Your task to perform on an android device: set default search engine in the chrome app Image 0: 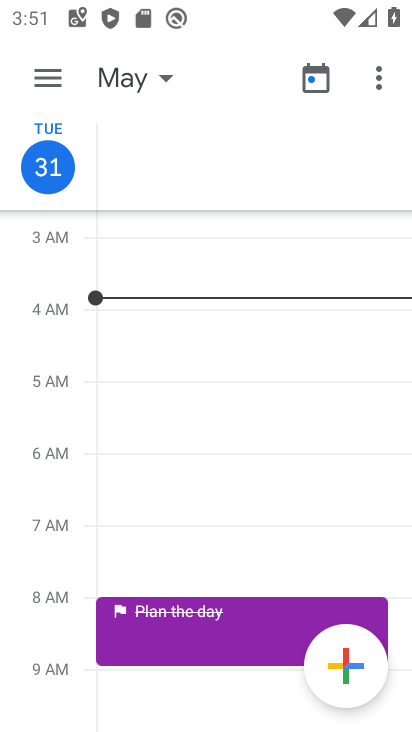
Step 0: press home button
Your task to perform on an android device: set default search engine in the chrome app Image 1: 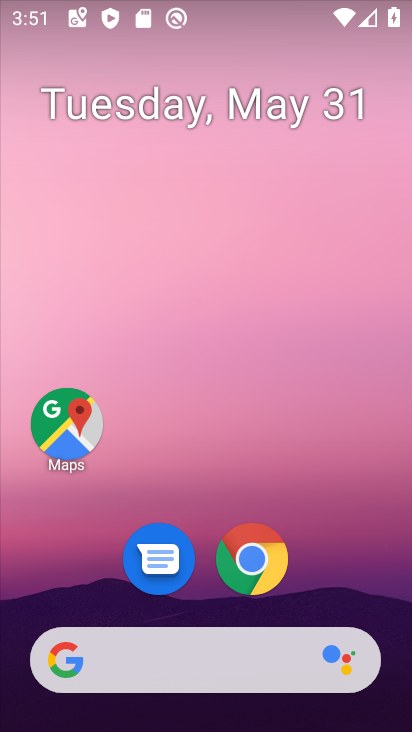
Step 1: click (252, 554)
Your task to perform on an android device: set default search engine in the chrome app Image 2: 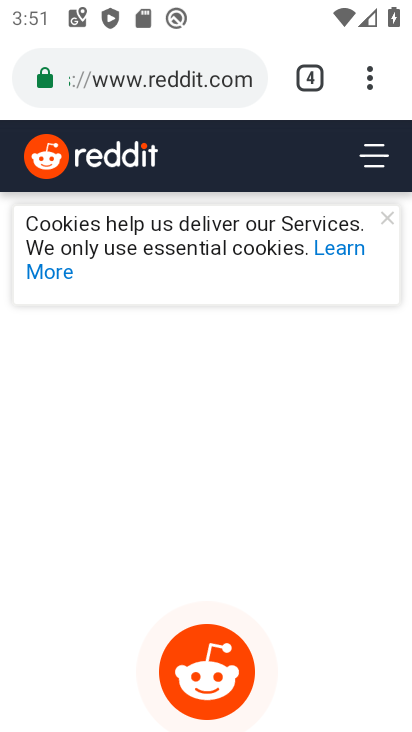
Step 2: click (371, 84)
Your task to perform on an android device: set default search engine in the chrome app Image 3: 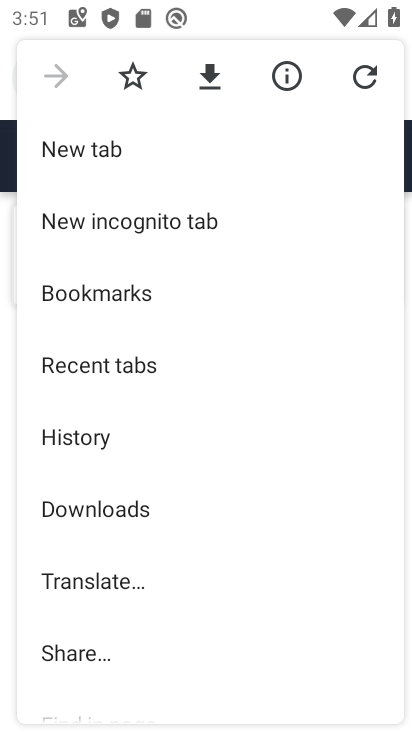
Step 3: drag from (114, 664) to (104, 281)
Your task to perform on an android device: set default search engine in the chrome app Image 4: 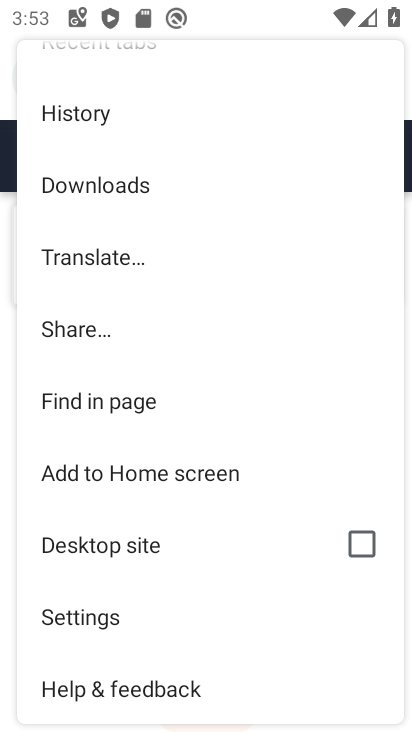
Step 4: click (92, 618)
Your task to perform on an android device: set default search engine in the chrome app Image 5: 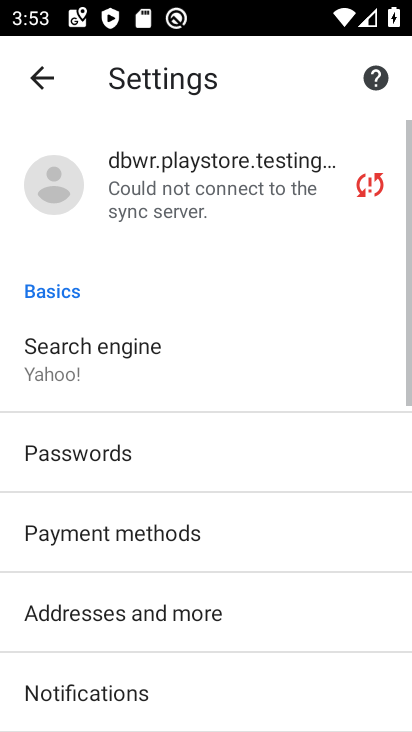
Step 5: click (83, 345)
Your task to perform on an android device: set default search engine in the chrome app Image 6: 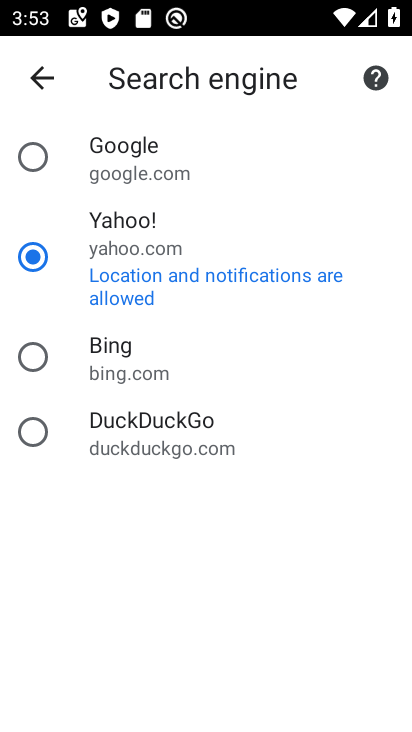
Step 6: click (35, 150)
Your task to perform on an android device: set default search engine in the chrome app Image 7: 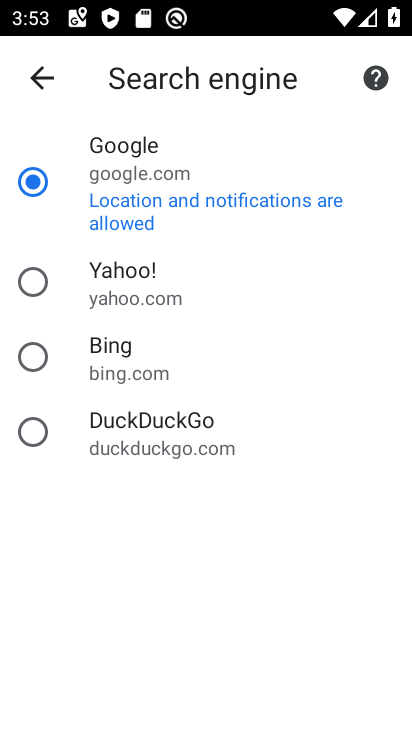
Step 7: task complete